Your task to perform on an android device: check android version Image 0: 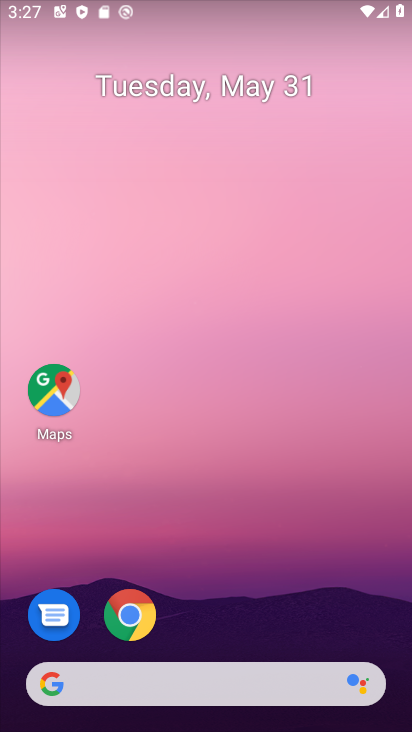
Step 0: drag from (272, 482) to (203, 120)
Your task to perform on an android device: check android version Image 1: 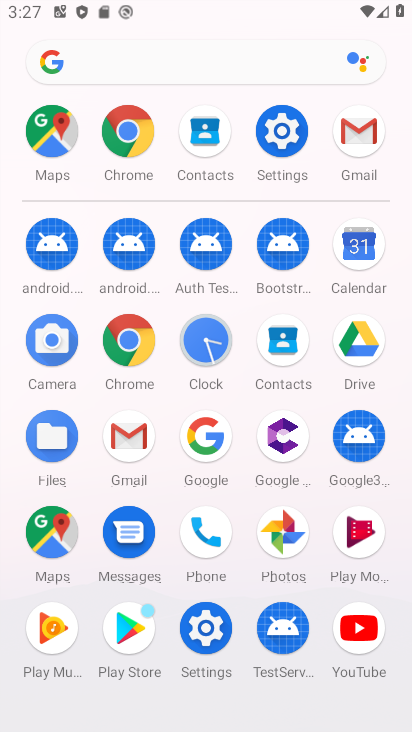
Step 1: click (280, 128)
Your task to perform on an android device: check android version Image 2: 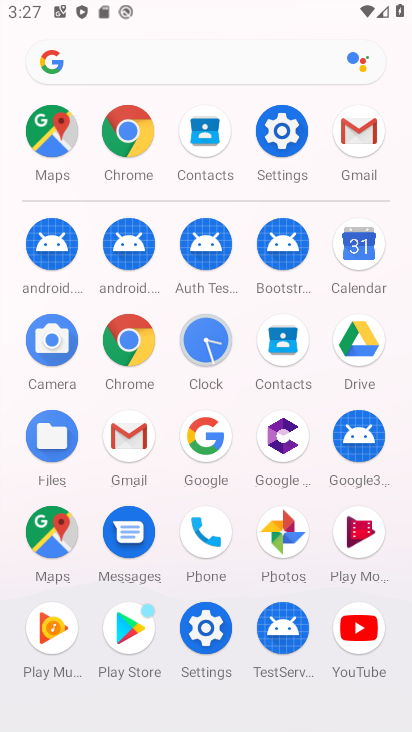
Step 2: click (281, 127)
Your task to perform on an android device: check android version Image 3: 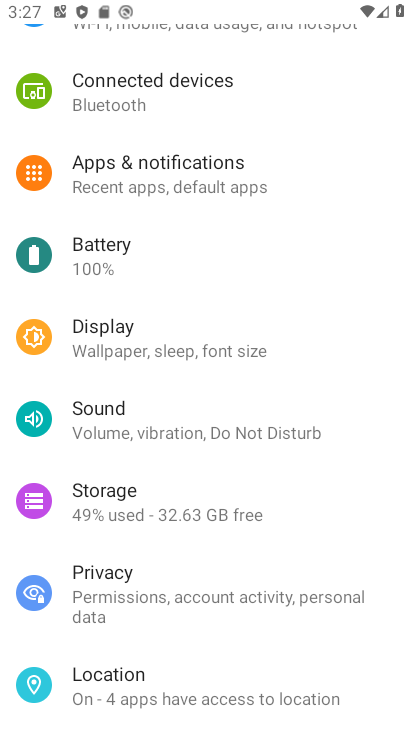
Step 3: click (102, 415)
Your task to perform on an android device: check android version Image 4: 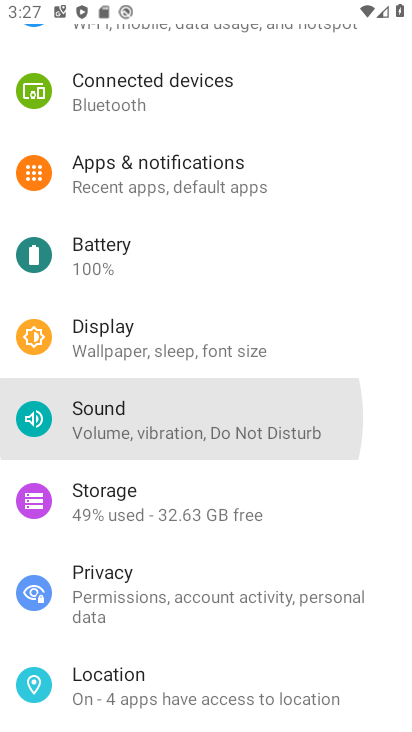
Step 4: click (103, 416)
Your task to perform on an android device: check android version Image 5: 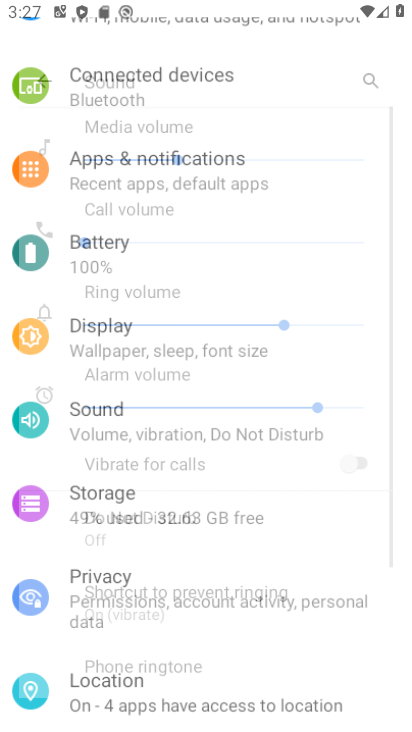
Step 5: click (103, 416)
Your task to perform on an android device: check android version Image 6: 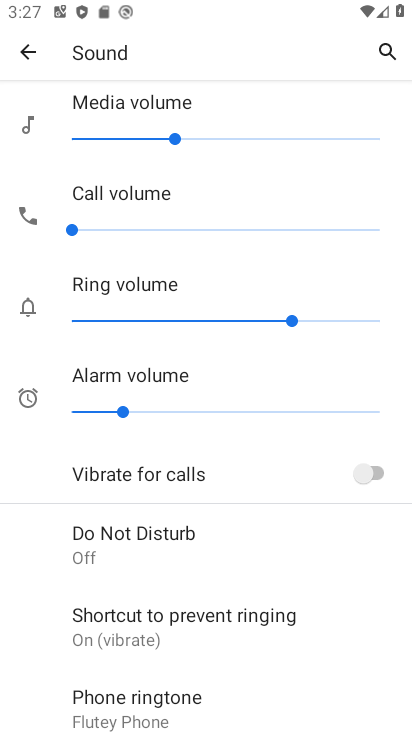
Step 6: click (26, 54)
Your task to perform on an android device: check android version Image 7: 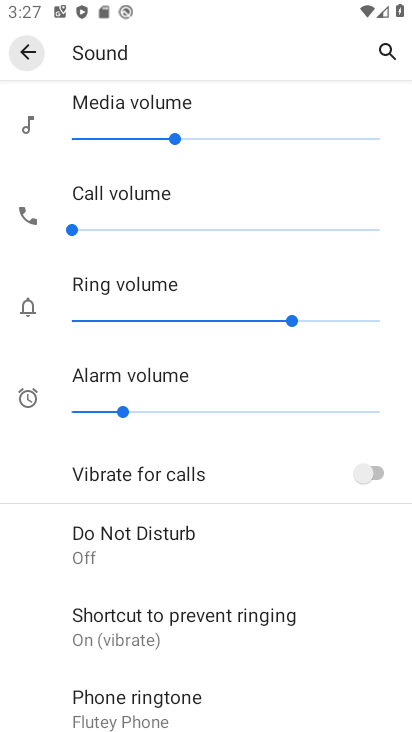
Step 7: click (27, 53)
Your task to perform on an android device: check android version Image 8: 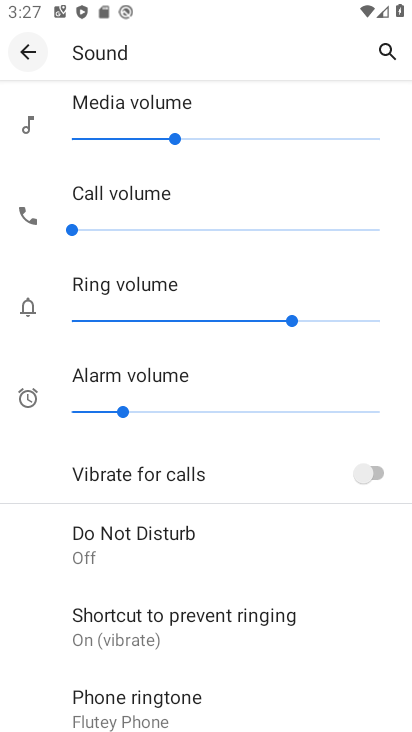
Step 8: click (27, 53)
Your task to perform on an android device: check android version Image 9: 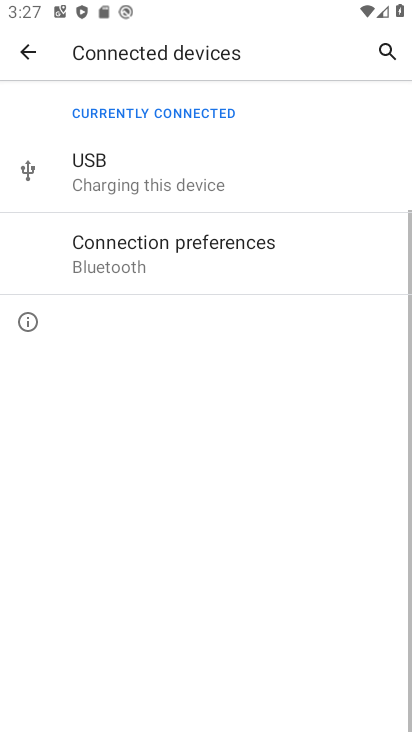
Step 9: drag from (144, 580) to (137, 127)
Your task to perform on an android device: check android version Image 10: 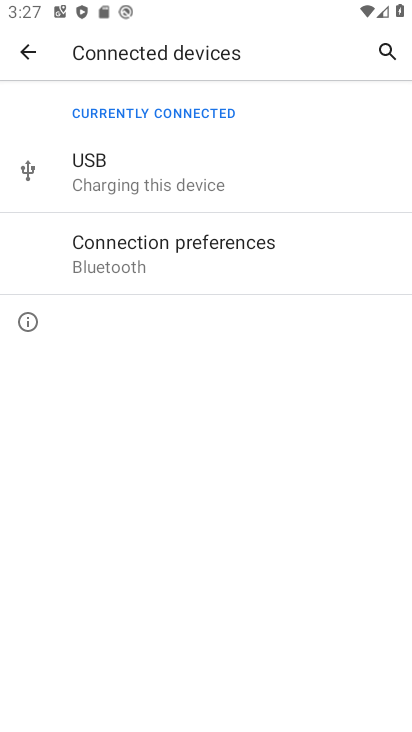
Step 10: click (21, 57)
Your task to perform on an android device: check android version Image 11: 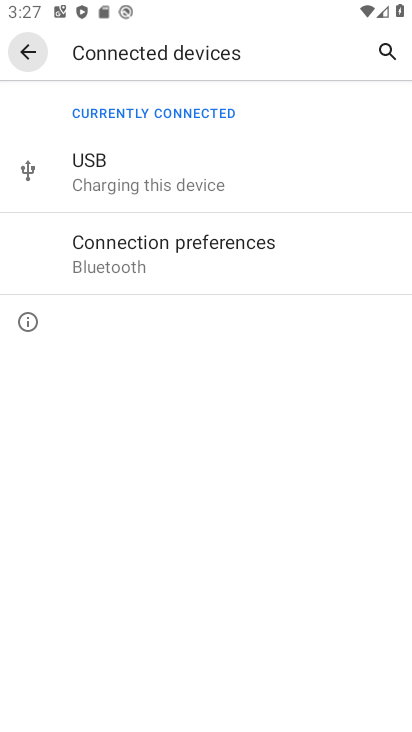
Step 11: click (23, 55)
Your task to perform on an android device: check android version Image 12: 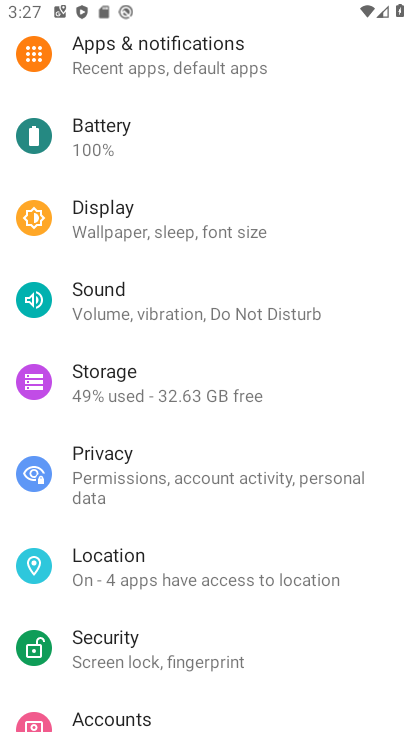
Step 12: click (23, 55)
Your task to perform on an android device: check android version Image 13: 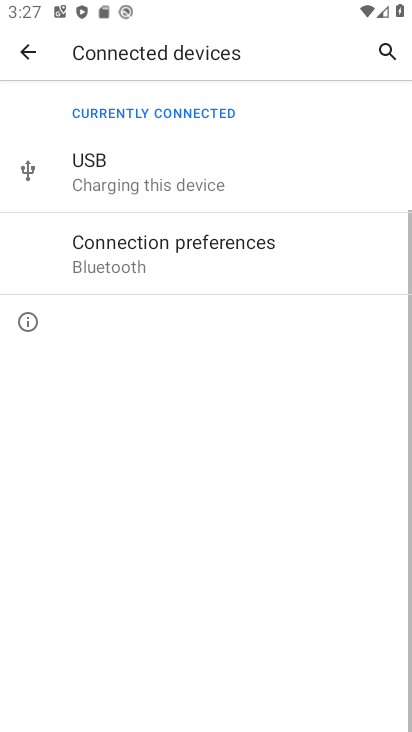
Step 13: drag from (117, 517) to (117, 140)
Your task to perform on an android device: check android version Image 14: 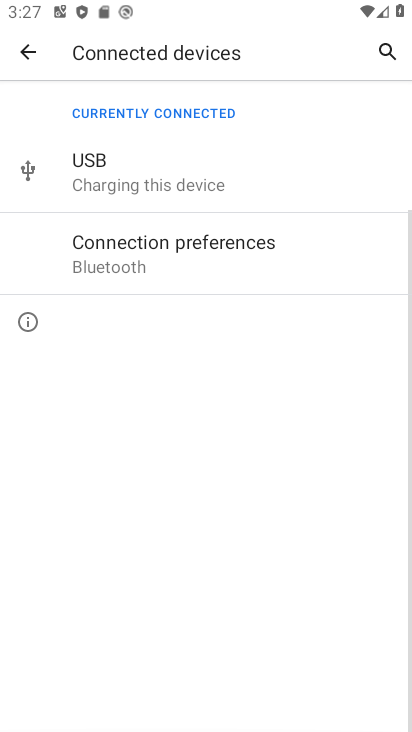
Step 14: click (19, 55)
Your task to perform on an android device: check android version Image 15: 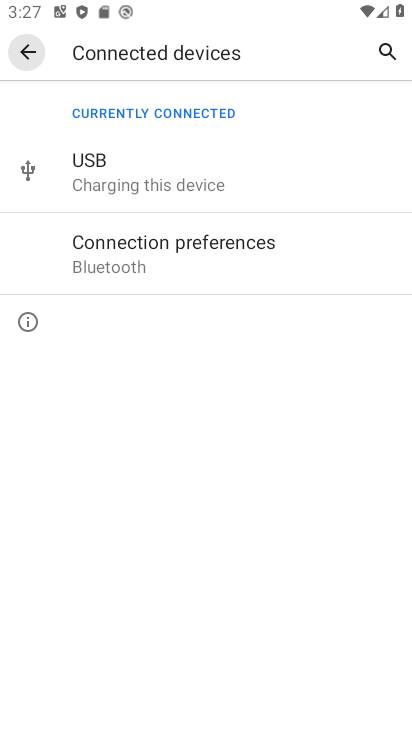
Step 15: click (20, 53)
Your task to perform on an android device: check android version Image 16: 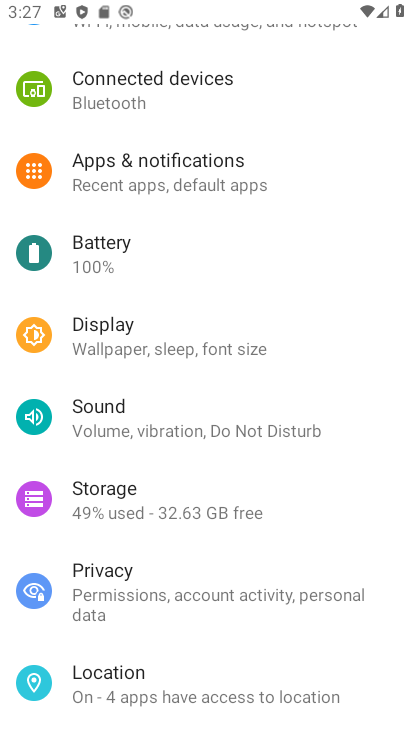
Step 16: drag from (104, 464) to (129, 39)
Your task to perform on an android device: check android version Image 17: 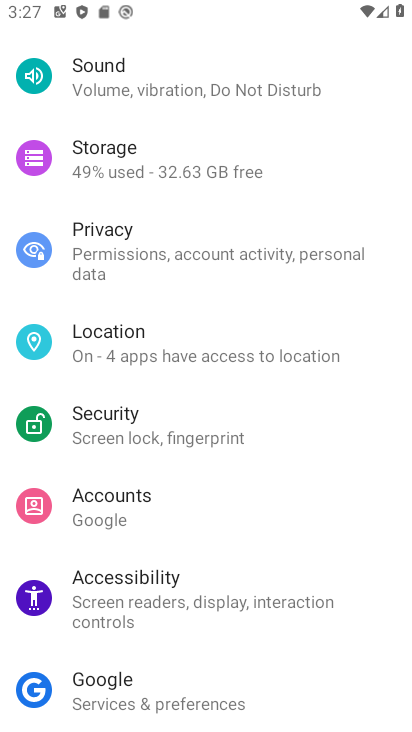
Step 17: drag from (196, 466) to (180, 90)
Your task to perform on an android device: check android version Image 18: 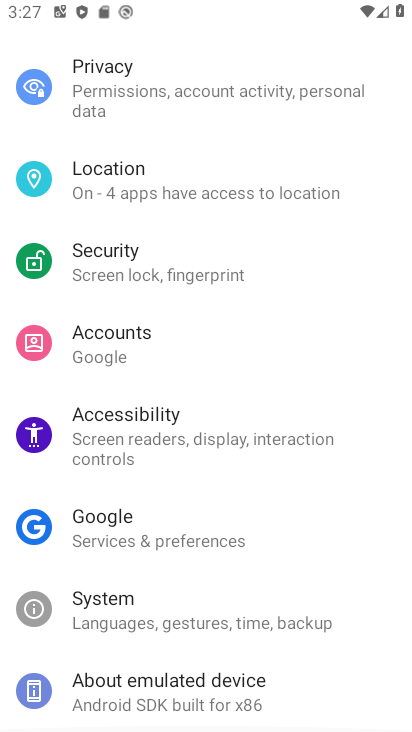
Step 18: drag from (204, 482) to (140, 119)
Your task to perform on an android device: check android version Image 19: 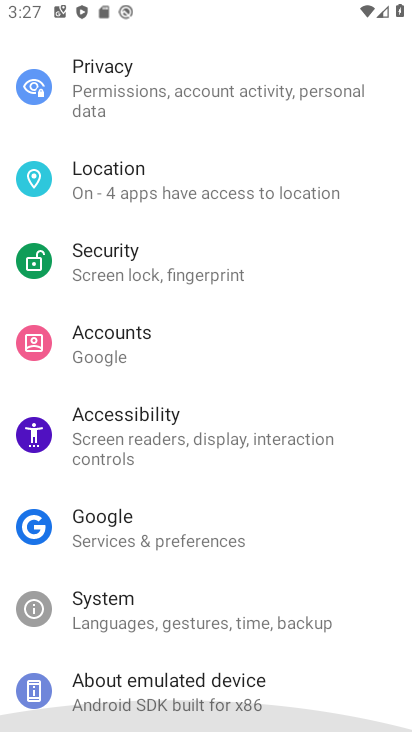
Step 19: drag from (214, 542) to (184, 107)
Your task to perform on an android device: check android version Image 20: 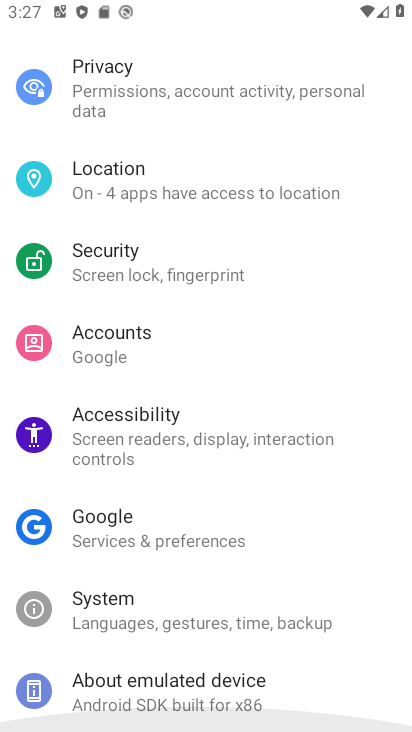
Step 20: drag from (182, 605) to (118, 163)
Your task to perform on an android device: check android version Image 21: 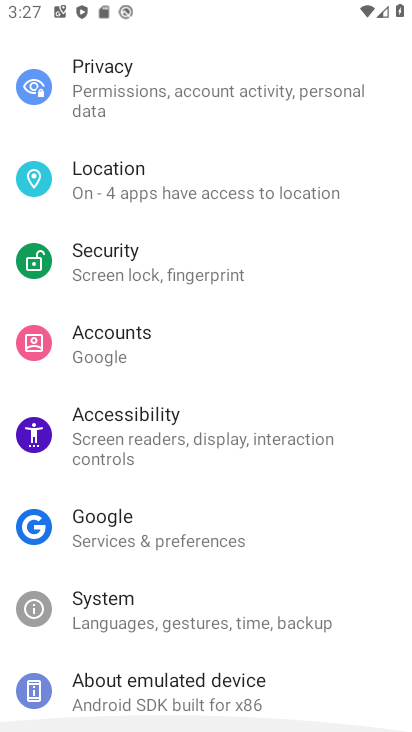
Step 21: drag from (141, 587) to (102, 102)
Your task to perform on an android device: check android version Image 22: 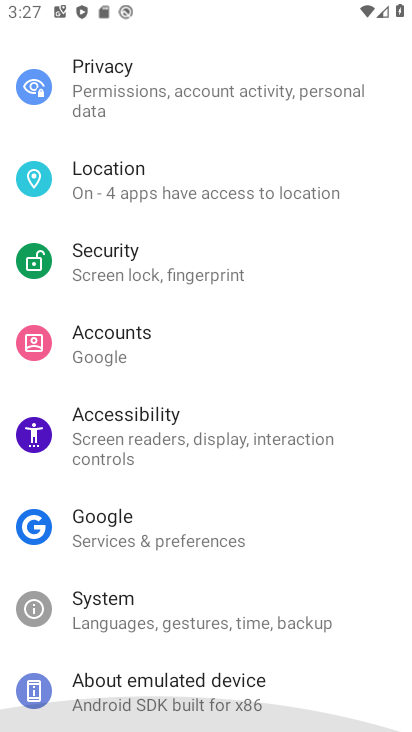
Step 22: drag from (167, 554) to (163, 97)
Your task to perform on an android device: check android version Image 23: 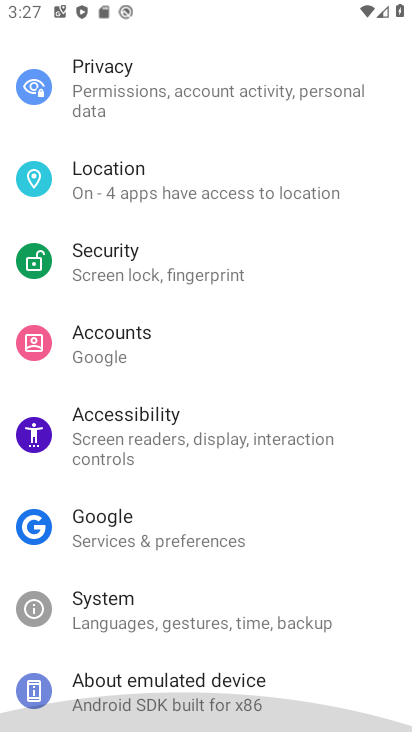
Step 23: drag from (209, 559) to (191, 2)
Your task to perform on an android device: check android version Image 24: 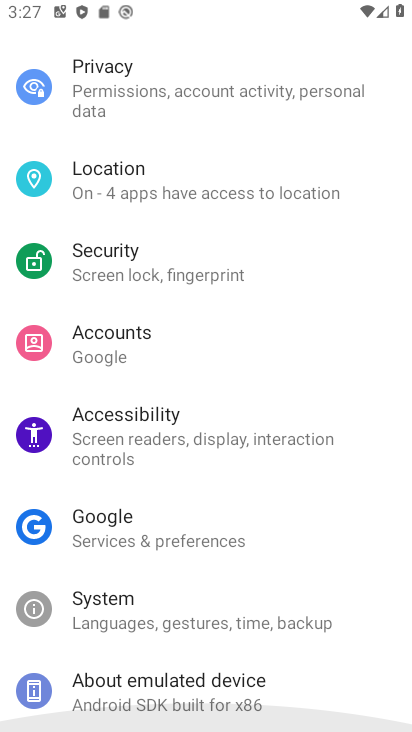
Step 24: drag from (192, 394) to (128, 19)
Your task to perform on an android device: check android version Image 25: 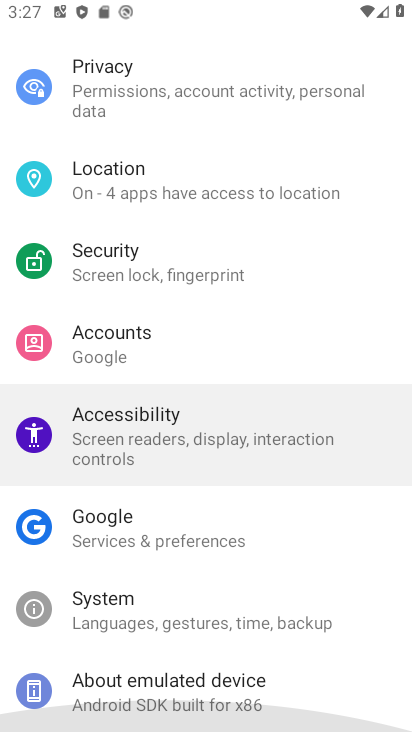
Step 25: drag from (154, 311) to (158, 88)
Your task to perform on an android device: check android version Image 26: 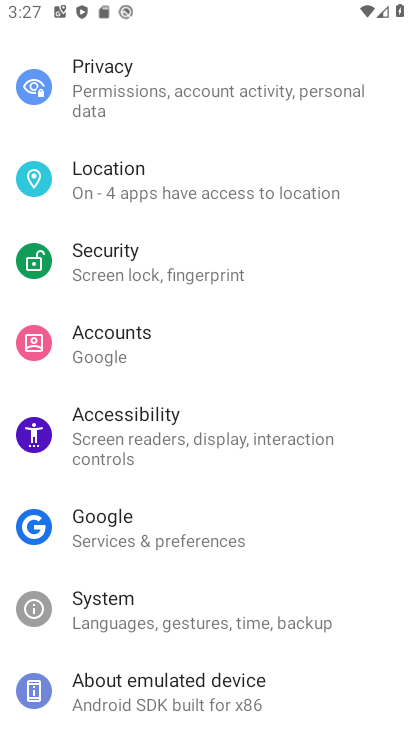
Step 26: drag from (189, 536) to (183, 172)
Your task to perform on an android device: check android version Image 27: 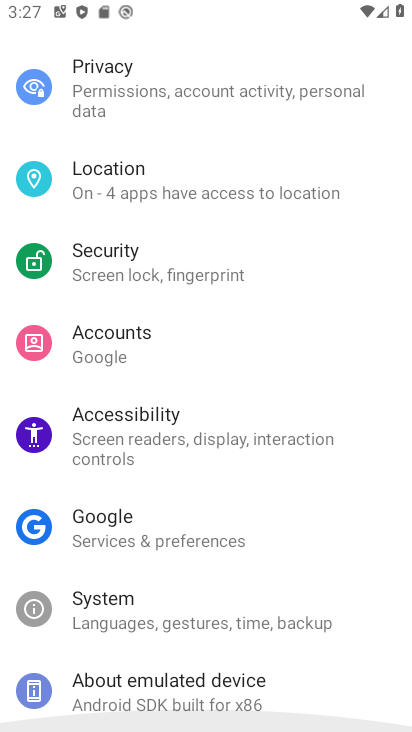
Step 27: drag from (174, 581) to (140, 255)
Your task to perform on an android device: check android version Image 28: 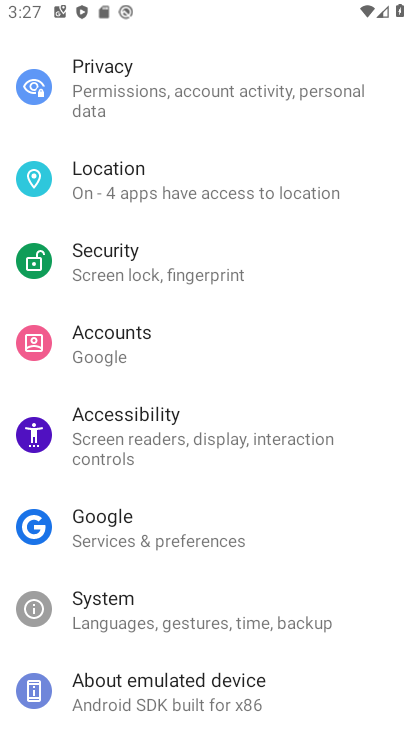
Step 28: click (160, 694)
Your task to perform on an android device: check android version Image 29: 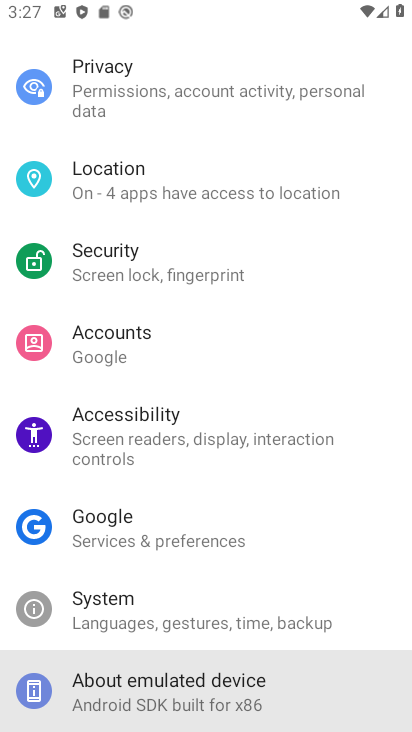
Step 29: click (160, 681)
Your task to perform on an android device: check android version Image 30: 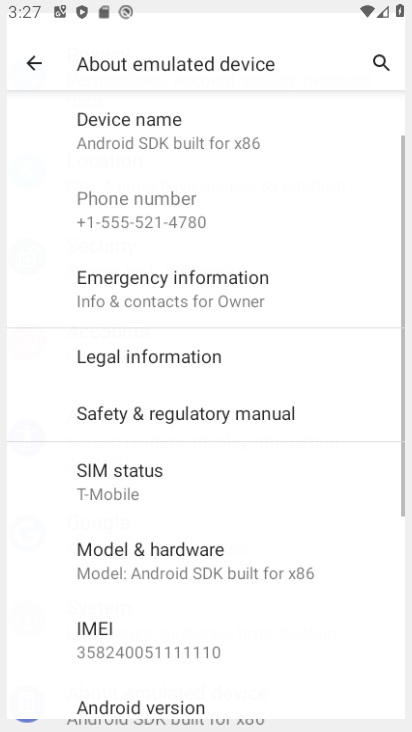
Step 30: click (160, 681)
Your task to perform on an android device: check android version Image 31: 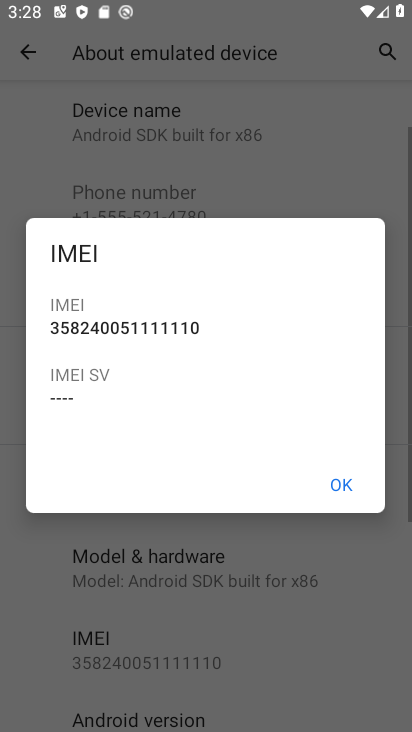
Step 31: drag from (154, 443) to (154, 116)
Your task to perform on an android device: check android version Image 32: 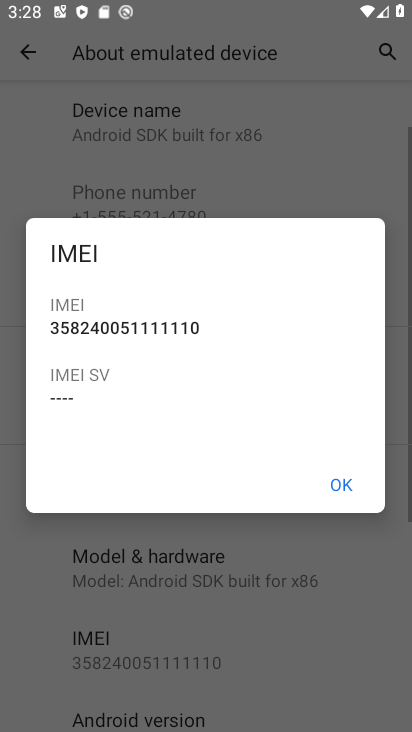
Step 32: click (337, 489)
Your task to perform on an android device: check android version Image 33: 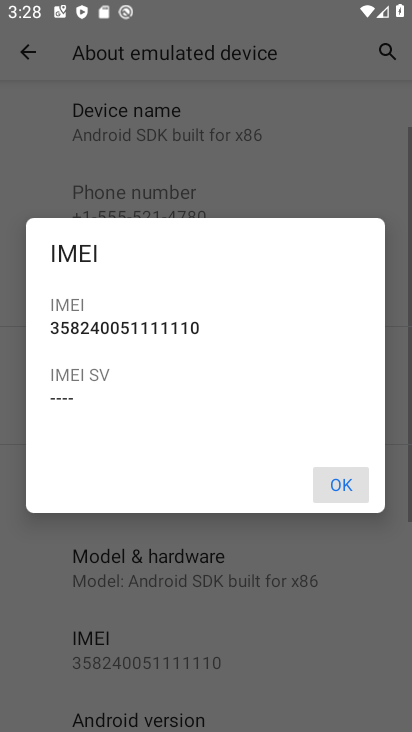
Step 33: click (337, 489)
Your task to perform on an android device: check android version Image 34: 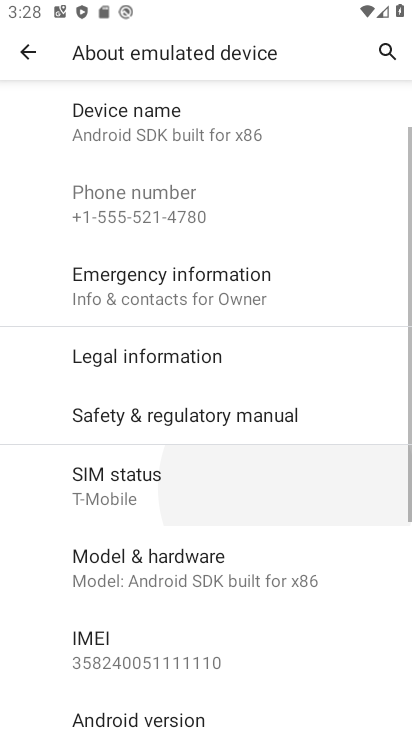
Step 34: click (337, 489)
Your task to perform on an android device: check android version Image 35: 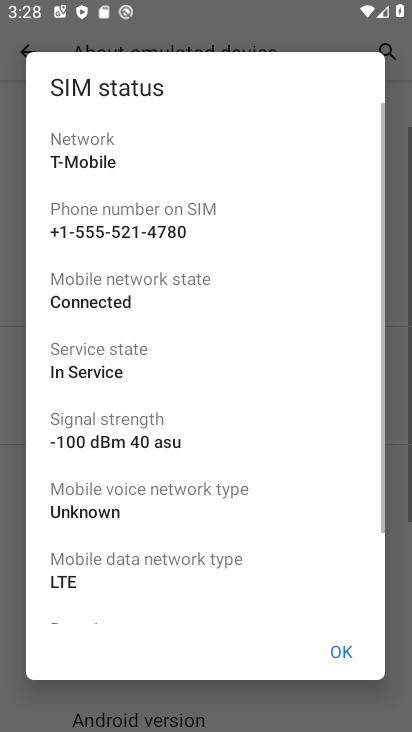
Step 35: drag from (181, 487) to (221, 83)
Your task to perform on an android device: check android version Image 36: 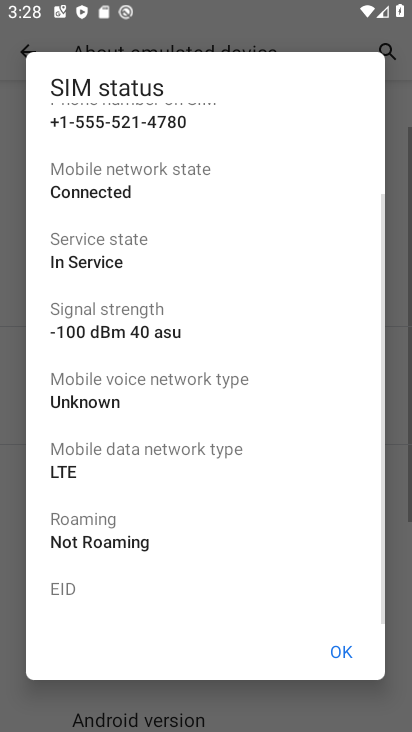
Step 36: click (343, 647)
Your task to perform on an android device: check android version Image 37: 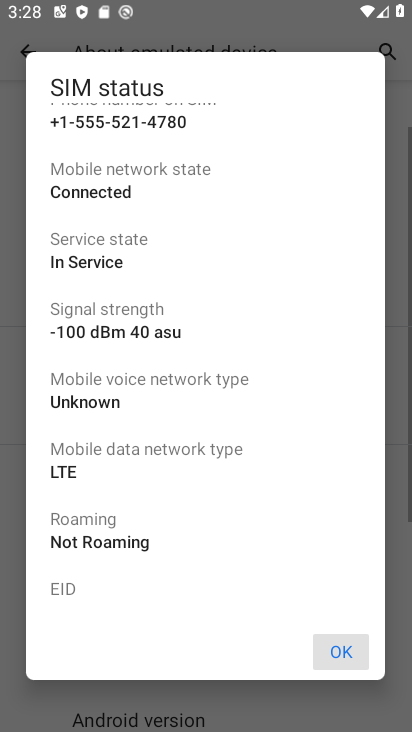
Step 37: click (347, 643)
Your task to perform on an android device: check android version Image 38: 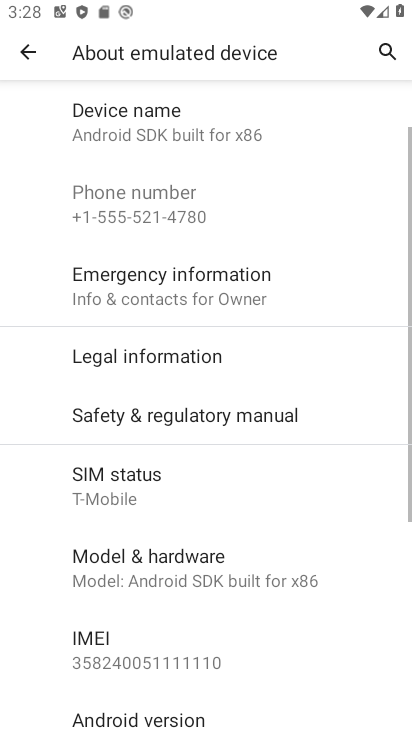
Step 38: click (347, 643)
Your task to perform on an android device: check android version Image 39: 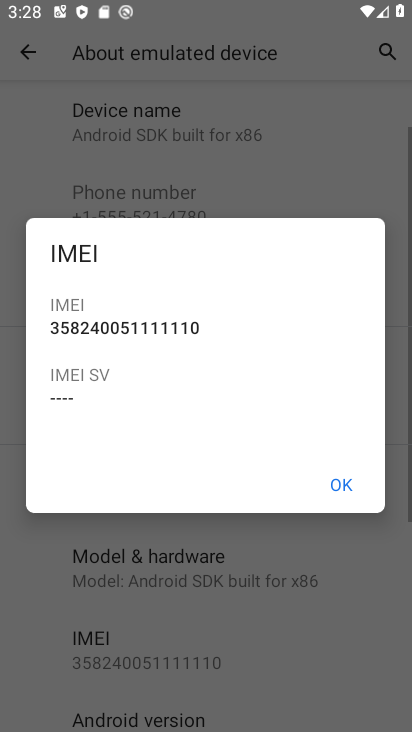
Step 39: click (338, 483)
Your task to perform on an android device: check android version Image 40: 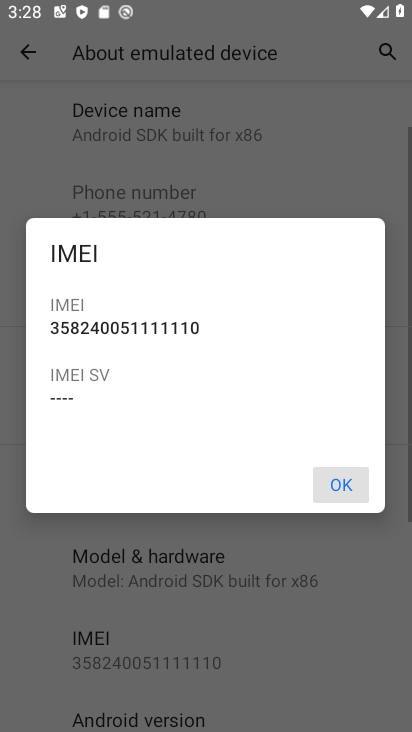
Step 40: click (342, 484)
Your task to perform on an android device: check android version Image 41: 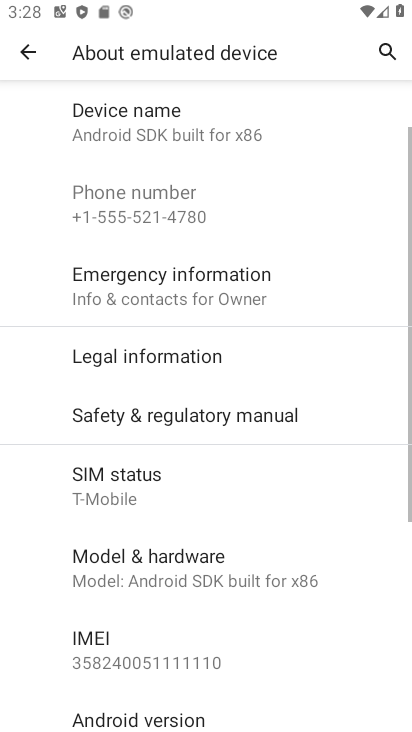
Step 41: click (342, 484)
Your task to perform on an android device: check android version Image 42: 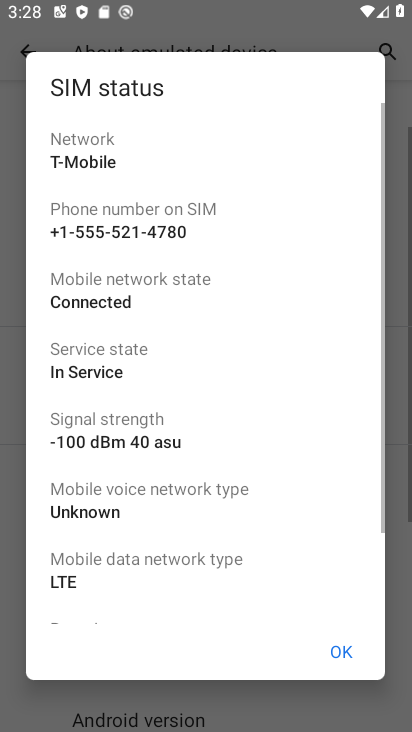
Step 42: drag from (256, 518) to (213, 349)
Your task to perform on an android device: check android version Image 43: 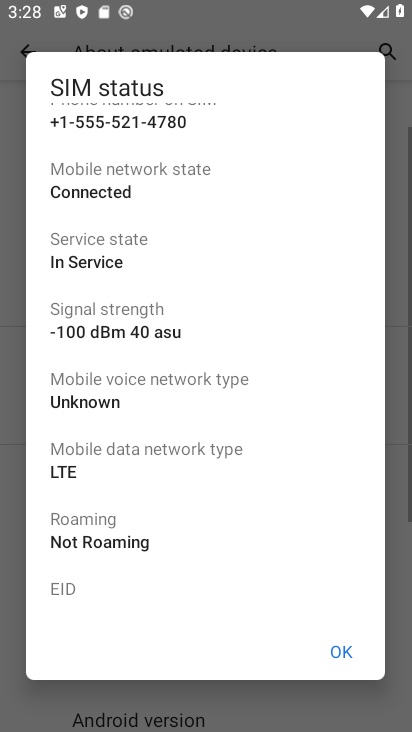
Step 43: click (337, 647)
Your task to perform on an android device: check android version Image 44: 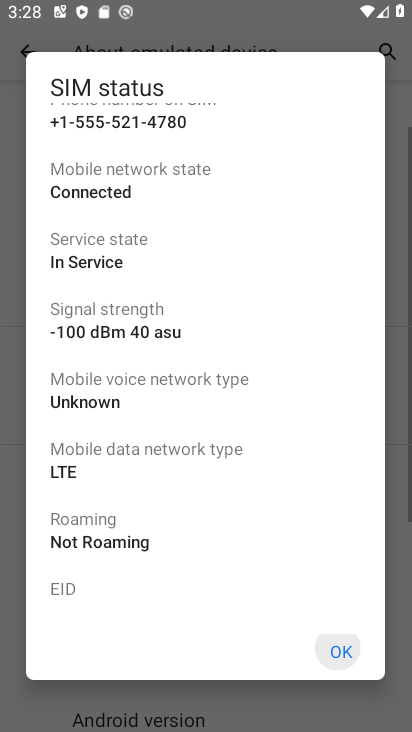
Step 44: click (332, 649)
Your task to perform on an android device: check android version Image 45: 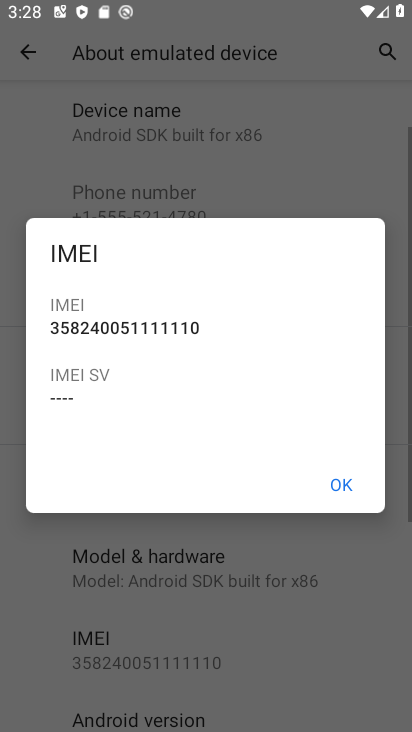
Step 45: drag from (197, 498) to (204, 146)
Your task to perform on an android device: check android version Image 46: 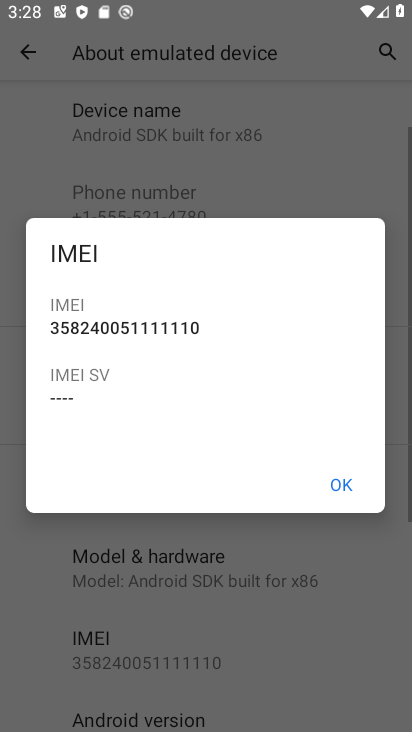
Step 46: click (344, 514)
Your task to perform on an android device: check android version Image 47: 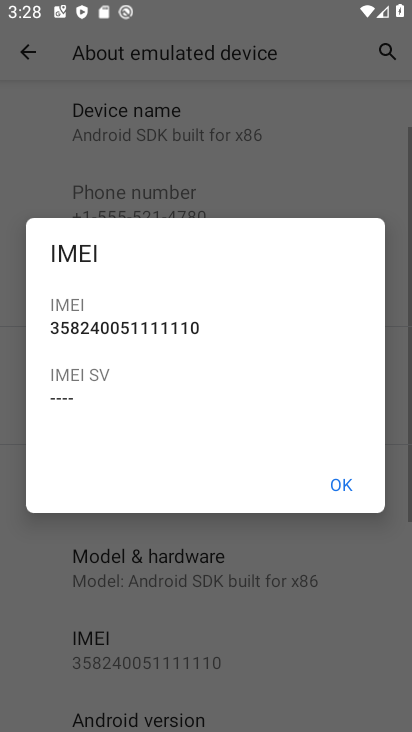
Step 47: click (340, 483)
Your task to perform on an android device: check android version Image 48: 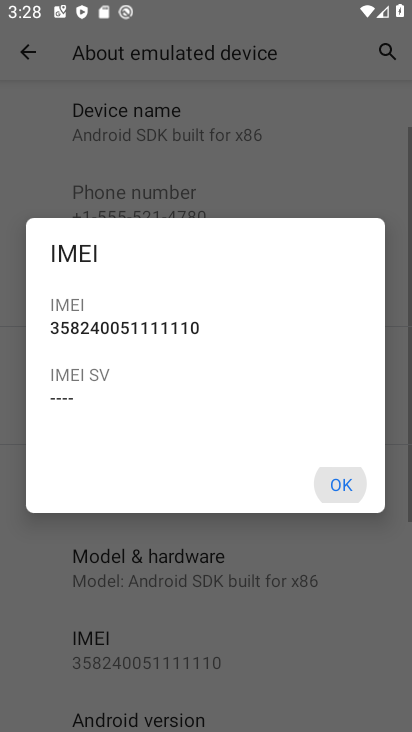
Step 48: click (340, 483)
Your task to perform on an android device: check android version Image 49: 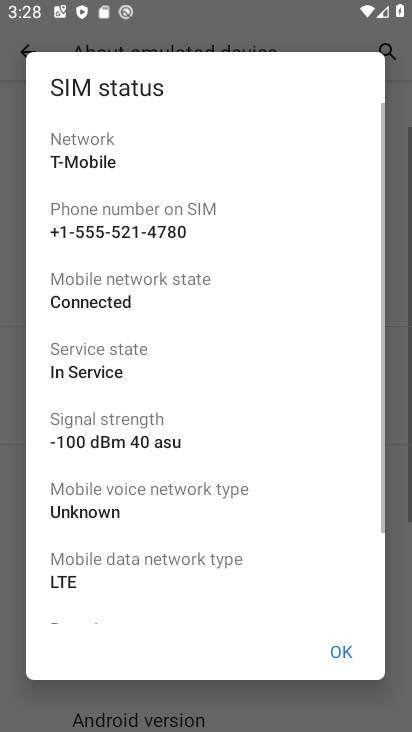
Step 49: task complete